Your task to perform on an android device: delete browsing data in the chrome app Image 0: 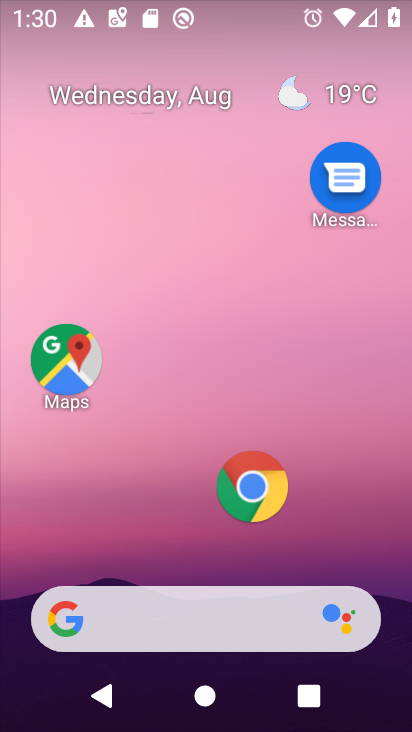
Step 0: click (247, 482)
Your task to perform on an android device: delete browsing data in the chrome app Image 1: 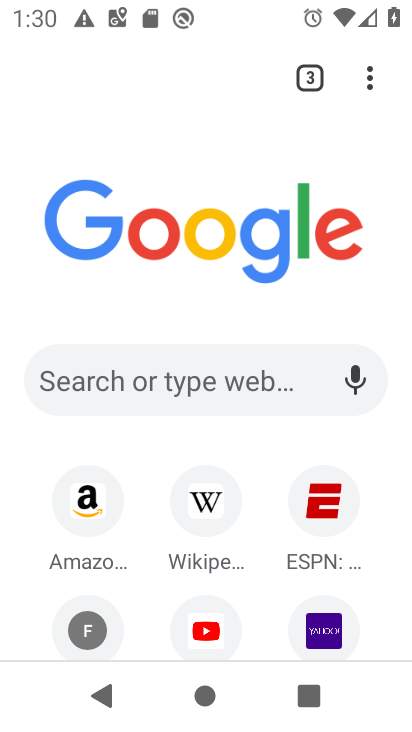
Step 1: drag from (373, 85) to (82, 432)
Your task to perform on an android device: delete browsing data in the chrome app Image 2: 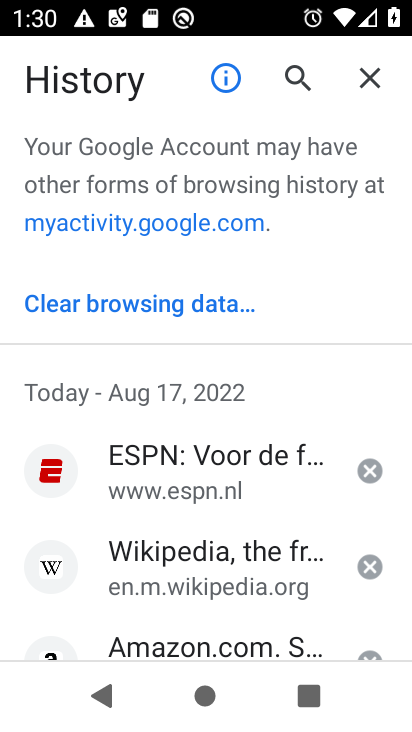
Step 2: click (120, 299)
Your task to perform on an android device: delete browsing data in the chrome app Image 3: 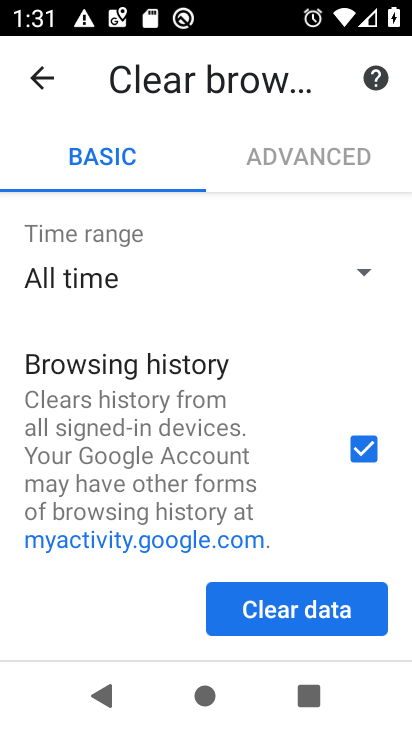
Step 3: drag from (139, 581) to (221, 150)
Your task to perform on an android device: delete browsing data in the chrome app Image 4: 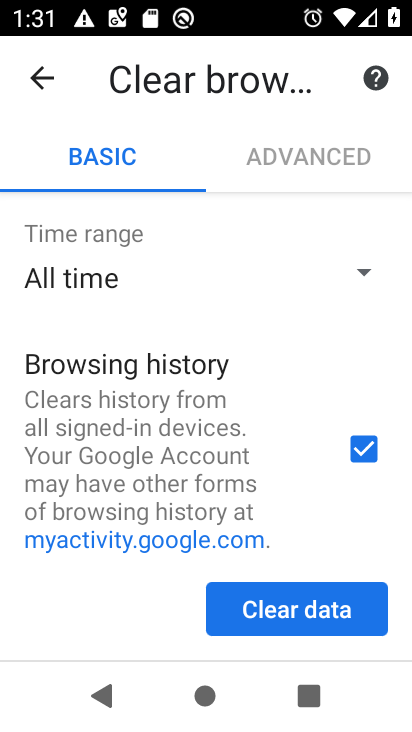
Step 4: drag from (137, 508) to (236, 162)
Your task to perform on an android device: delete browsing data in the chrome app Image 5: 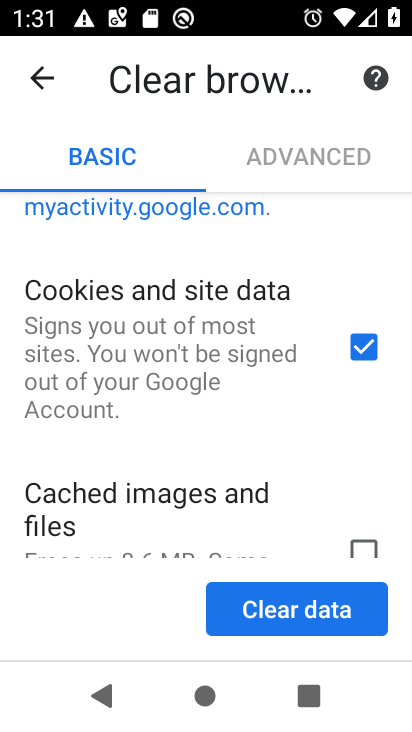
Step 5: click (365, 547)
Your task to perform on an android device: delete browsing data in the chrome app Image 6: 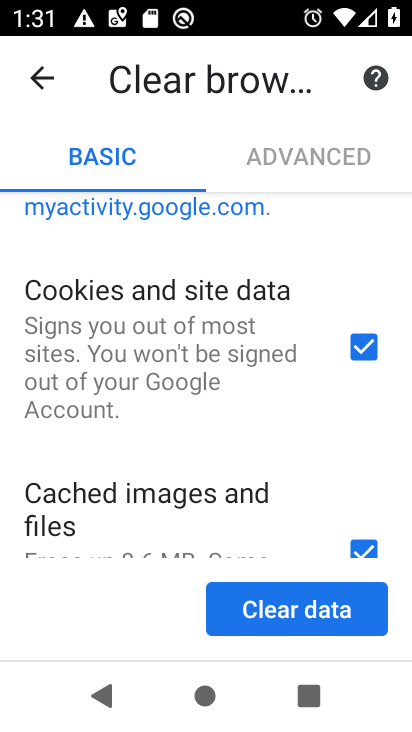
Step 6: click (295, 617)
Your task to perform on an android device: delete browsing data in the chrome app Image 7: 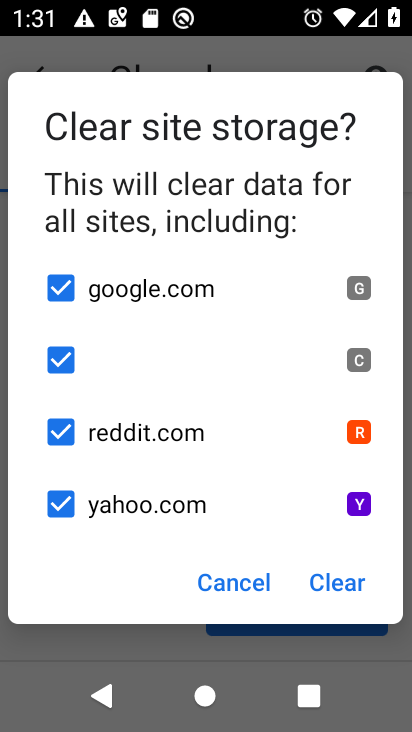
Step 7: click (317, 587)
Your task to perform on an android device: delete browsing data in the chrome app Image 8: 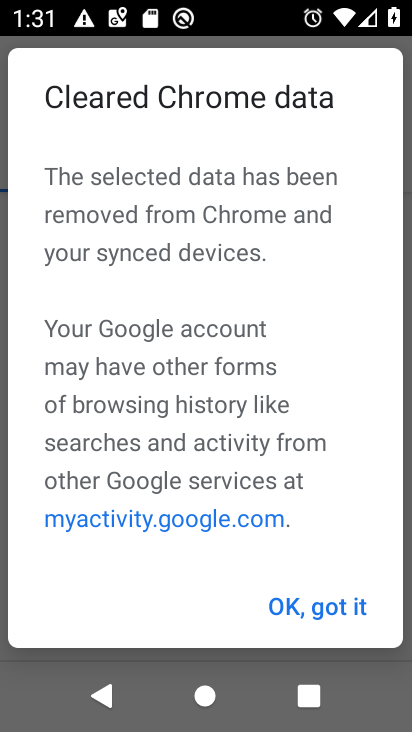
Step 8: click (314, 592)
Your task to perform on an android device: delete browsing data in the chrome app Image 9: 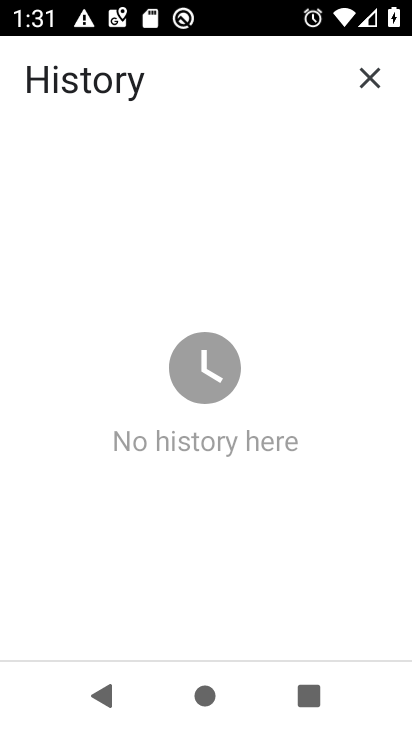
Step 9: task complete